Your task to perform on an android device: turn off improve location accuracy Image 0: 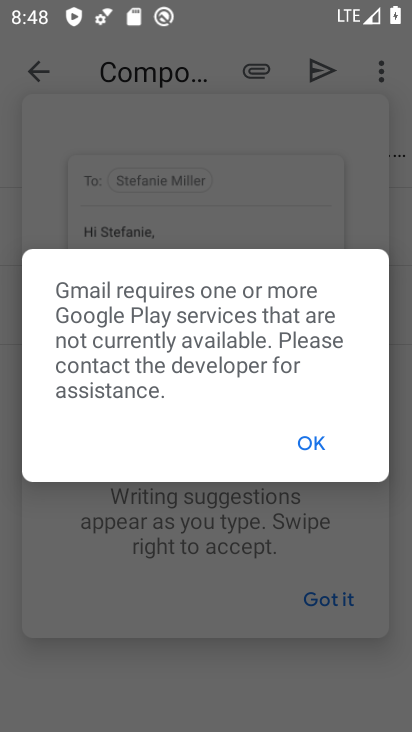
Step 0: press home button
Your task to perform on an android device: turn off improve location accuracy Image 1: 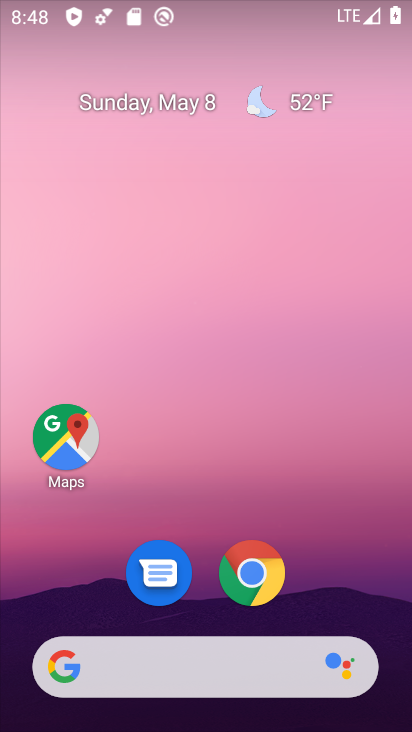
Step 1: drag from (198, 723) to (174, 280)
Your task to perform on an android device: turn off improve location accuracy Image 2: 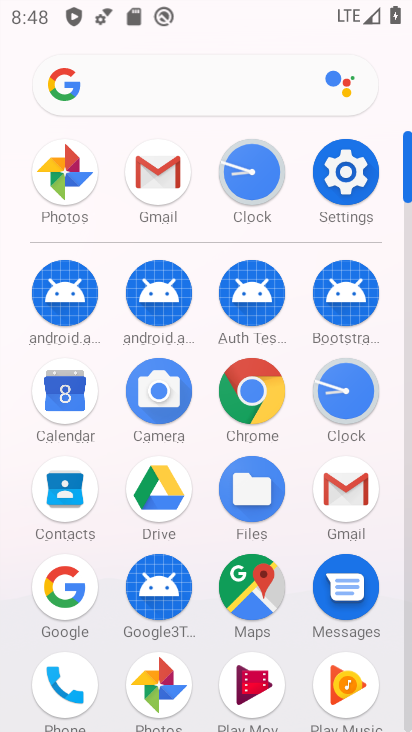
Step 2: click (333, 173)
Your task to perform on an android device: turn off improve location accuracy Image 3: 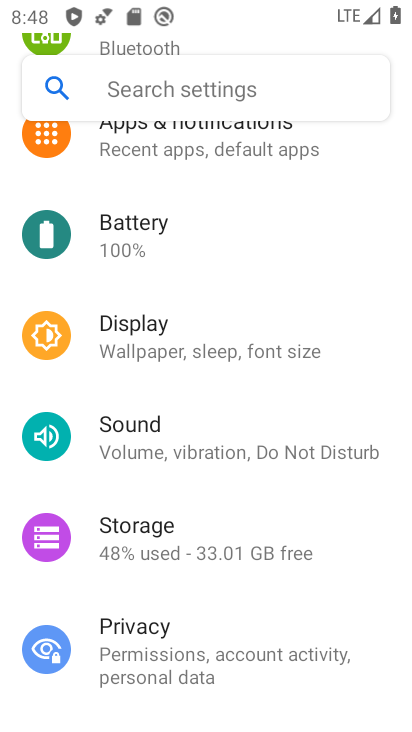
Step 3: drag from (165, 667) to (169, 355)
Your task to perform on an android device: turn off improve location accuracy Image 4: 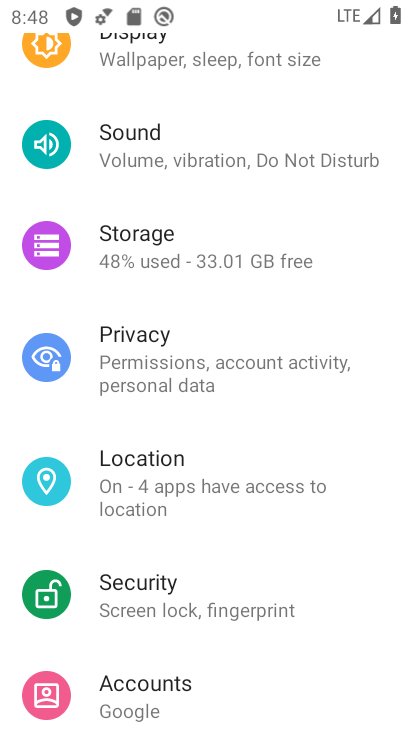
Step 4: click (137, 476)
Your task to perform on an android device: turn off improve location accuracy Image 5: 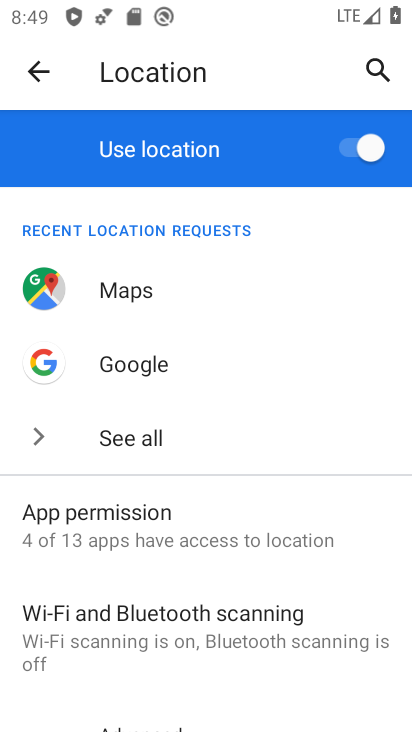
Step 5: drag from (153, 600) to (178, 306)
Your task to perform on an android device: turn off improve location accuracy Image 6: 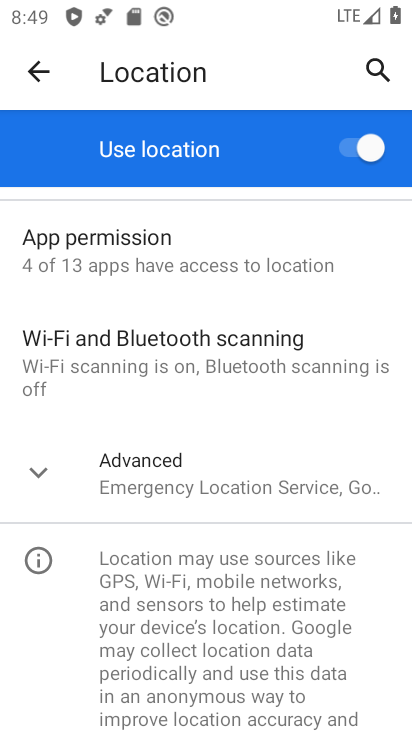
Step 6: click (156, 469)
Your task to perform on an android device: turn off improve location accuracy Image 7: 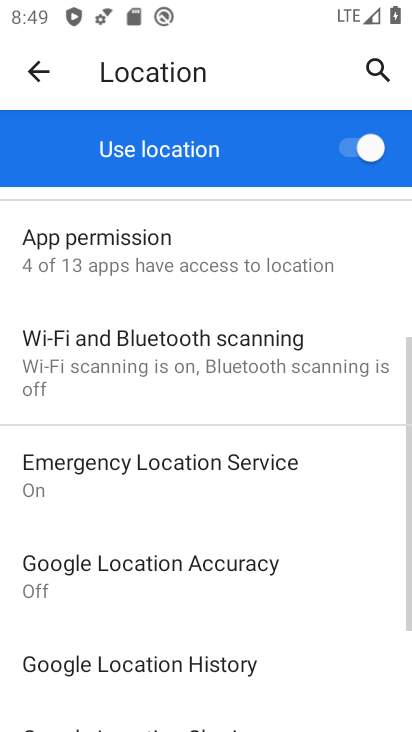
Step 7: drag from (241, 635) to (240, 515)
Your task to perform on an android device: turn off improve location accuracy Image 8: 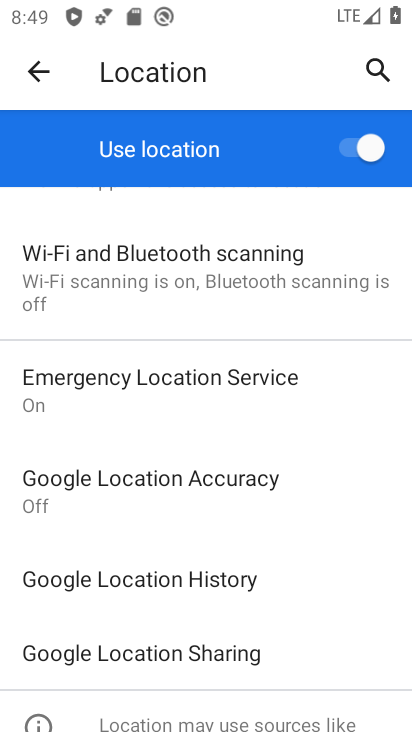
Step 8: click (116, 470)
Your task to perform on an android device: turn off improve location accuracy Image 9: 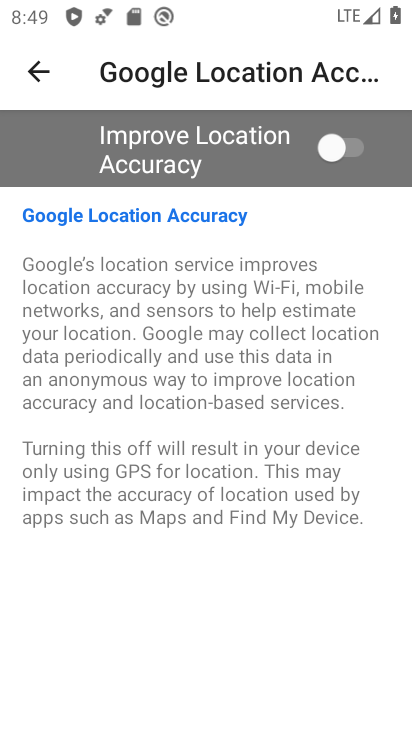
Step 9: task complete